Your task to perform on an android device: Search for pizza restaurants on Maps Image 0: 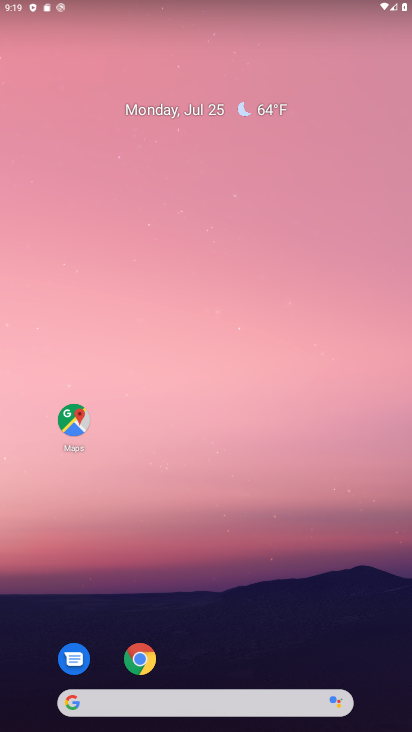
Step 0: drag from (360, 566) to (358, 118)
Your task to perform on an android device: Search for pizza restaurants on Maps Image 1: 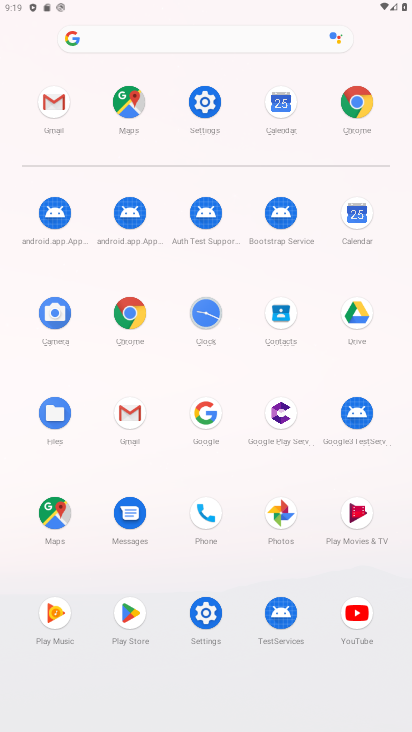
Step 1: click (63, 517)
Your task to perform on an android device: Search for pizza restaurants on Maps Image 2: 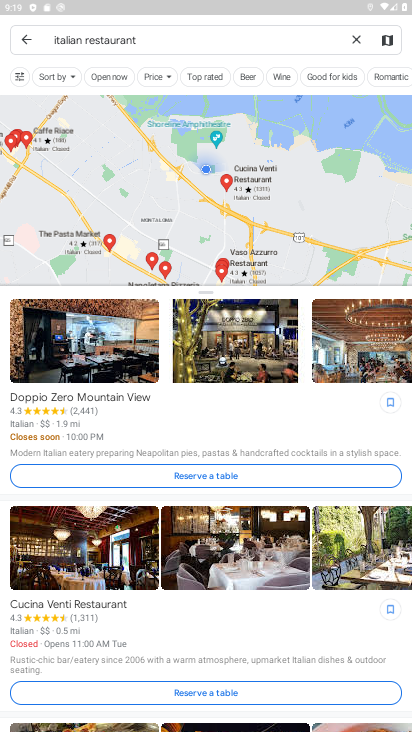
Step 2: press back button
Your task to perform on an android device: Search for pizza restaurants on Maps Image 3: 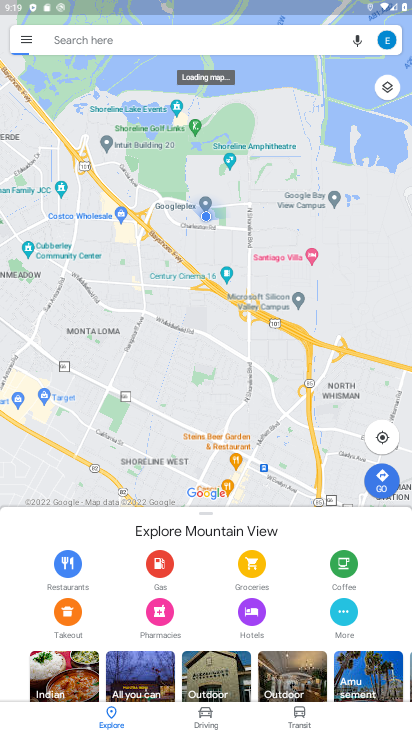
Step 3: click (172, 34)
Your task to perform on an android device: Search for pizza restaurants on Maps Image 4: 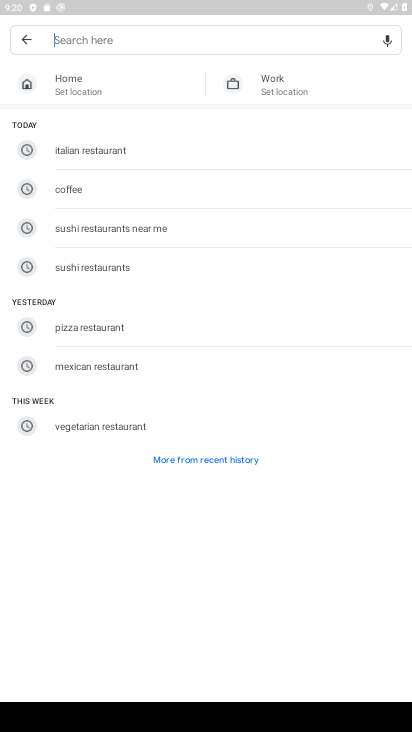
Step 4: type "pizza restaurants"
Your task to perform on an android device: Search for pizza restaurants on Maps Image 5: 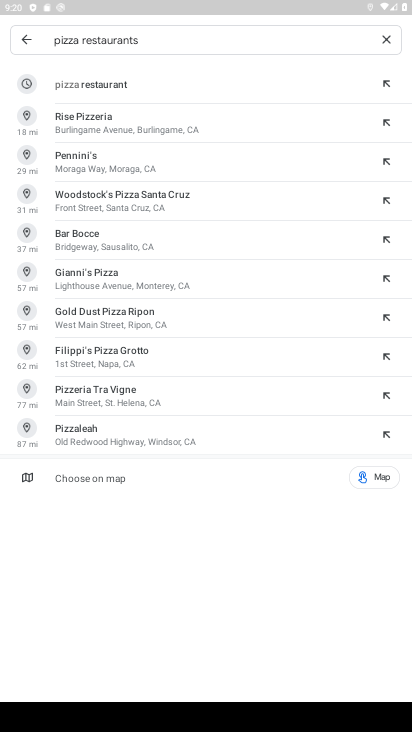
Step 5: click (154, 87)
Your task to perform on an android device: Search for pizza restaurants on Maps Image 6: 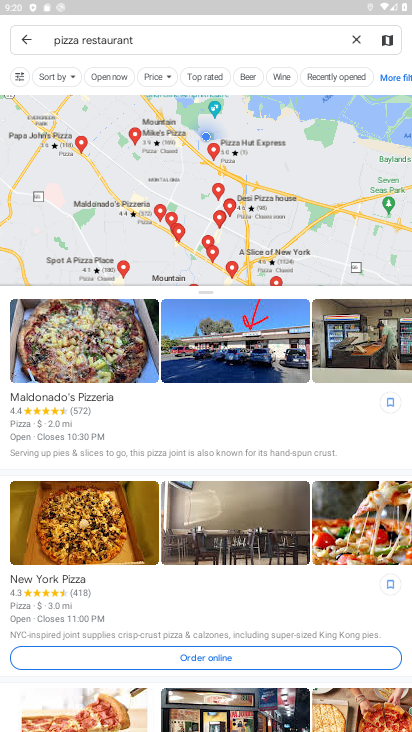
Step 6: task complete